Your task to perform on an android device: Open maps Image 0: 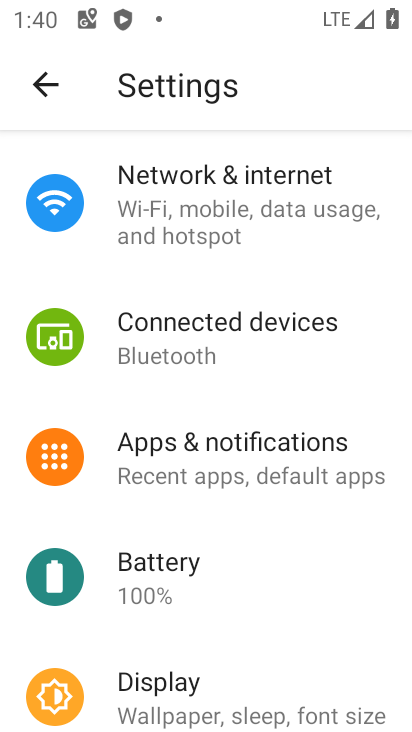
Step 0: press home button
Your task to perform on an android device: Open maps Image 1: 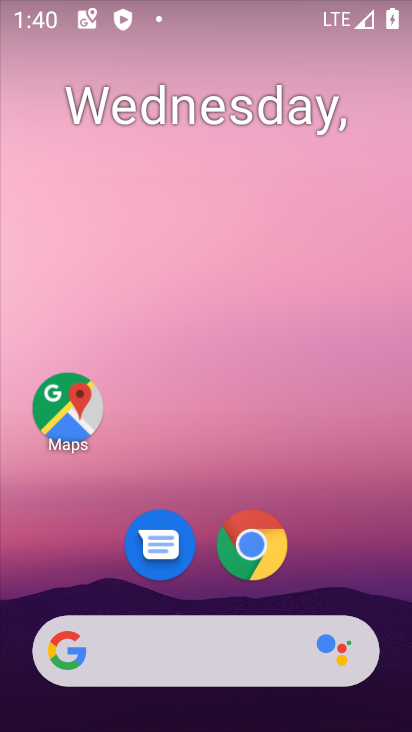
Step 1: click (71, 409)
Your task to perform on an android device: Open maps Image 2: 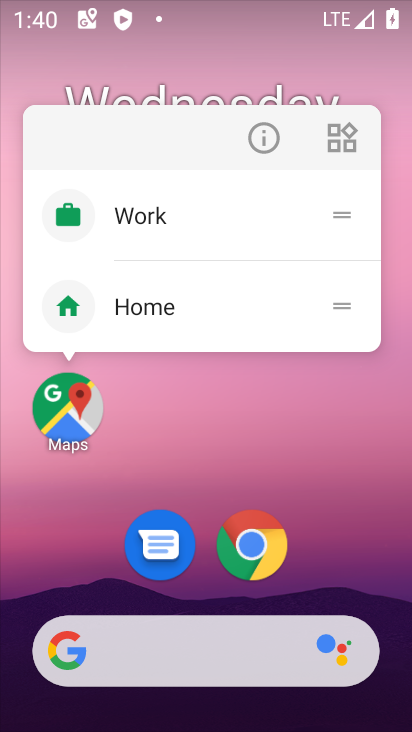
Step 2: click (68, 412)
Your task to perform on an android device: Open maps Image 3: 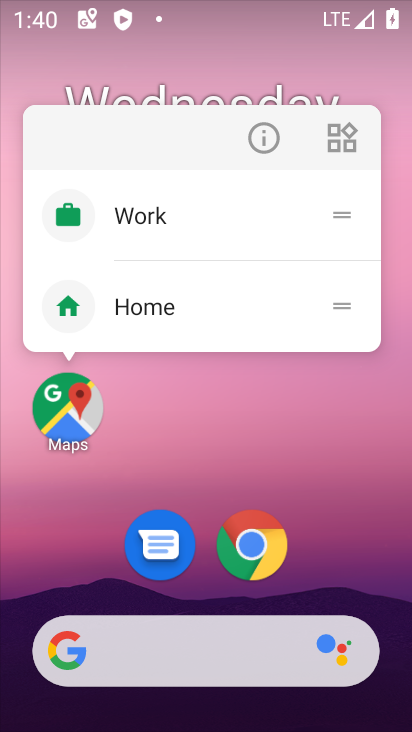
Step 3: click (71, 415)
Your task to perform on an android device: Open maps Image 4: 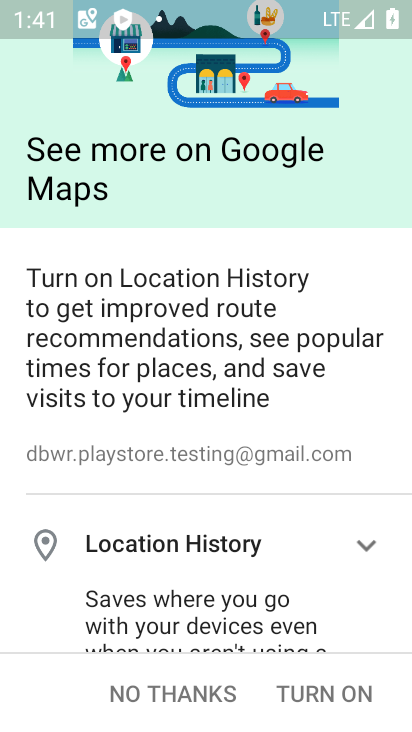
Step 4: click (173, 693)
Your task to perform on an android device: Open maps Image 5: 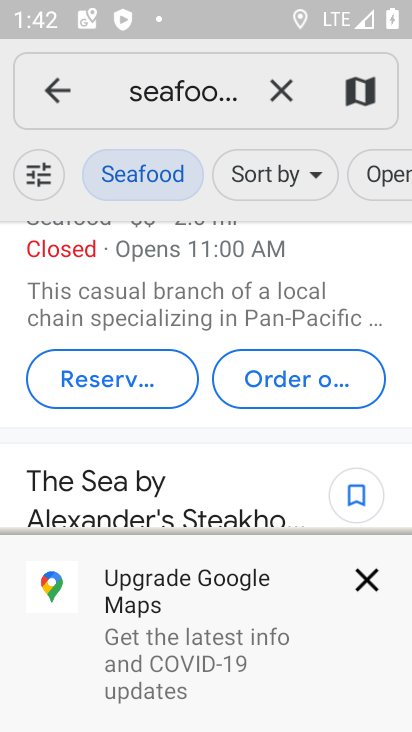
Step 5: task complete